Your task to perform on an android device: turn off notifications in google photos Image 0: 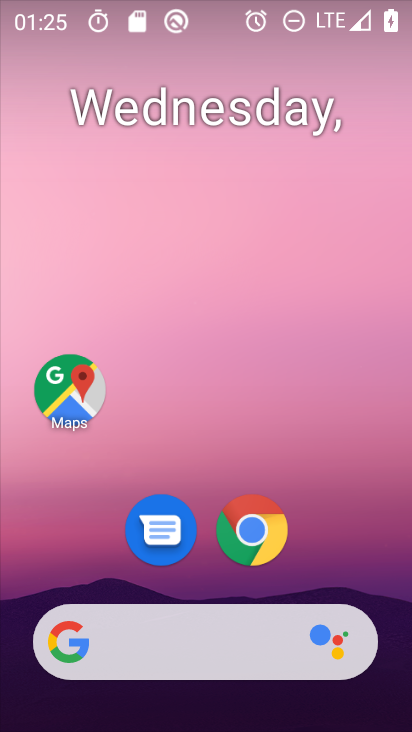
Step 0: drag from (328, 590) to (374, 2)
Your task to perform on an android device: turn off notifications in google photos Image 1: 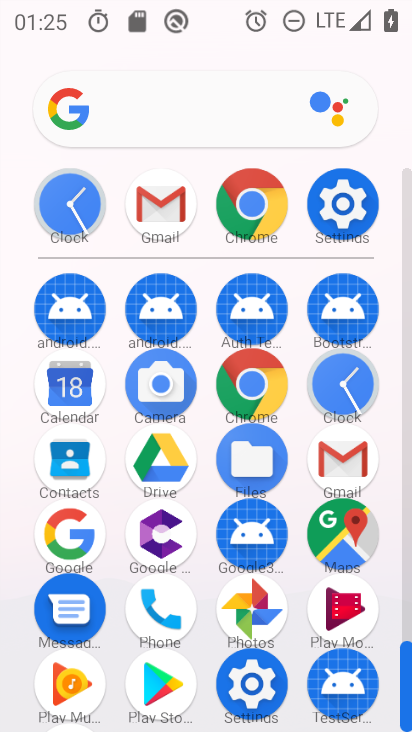
Step 1: click (257, 615)
Your task to perform on an android device: turn off notifications in google photos Image 2: 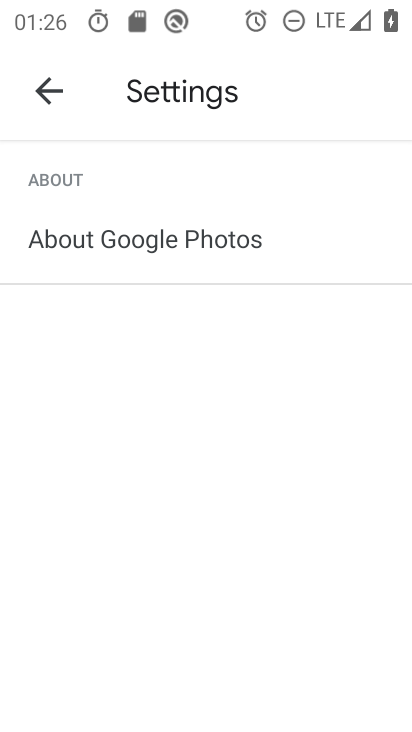
Step 2: press back button
Your task to perform on an android device: turn off notifications in google photos Image 3: 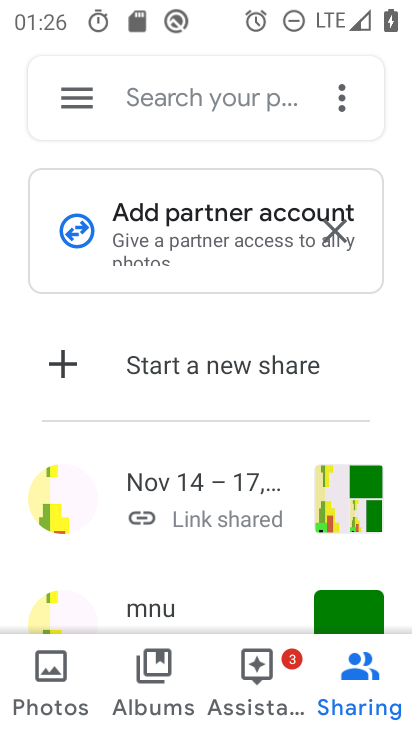
Step 3: click (75, 92)
Your task to perform on an android device: turn off notifications in google photos Image 4: 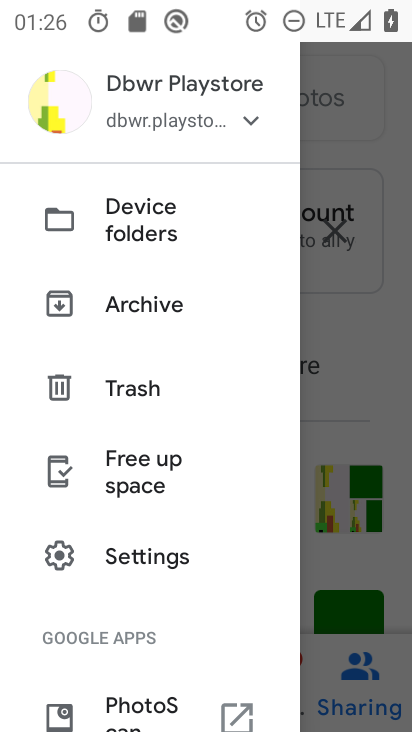
Step 4: click (140, 548)
Your task to perform on an android device: turn off notifications in google photos Image 5: 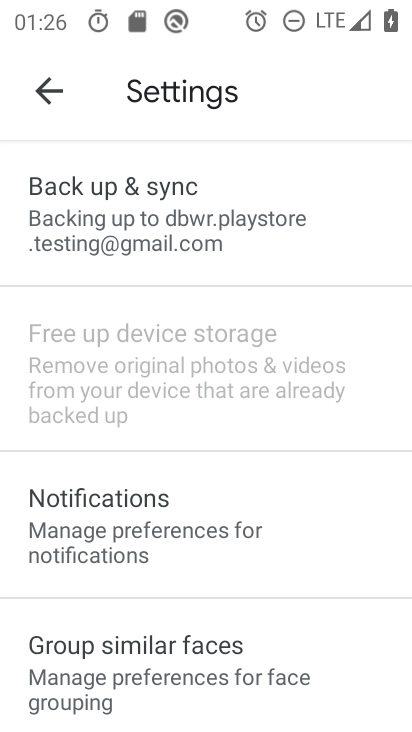
Step 5: click (231, 549)
Your task to perform on an android device: turn off notifications in google photos Image 6: 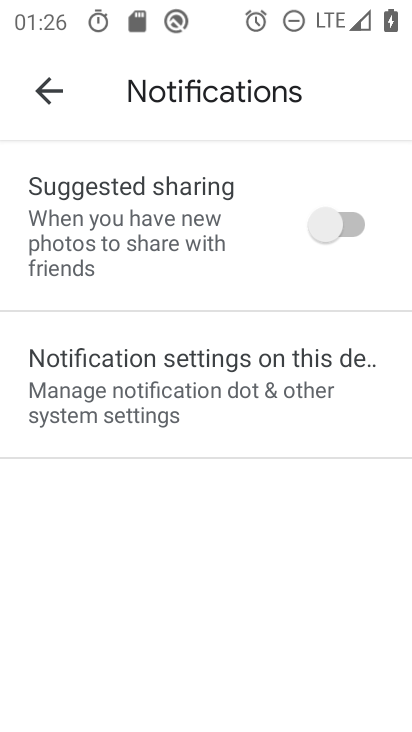
Step 6: click (240, 373)
Your task to perform on an android device: turn off notifications in google photos Image 7: 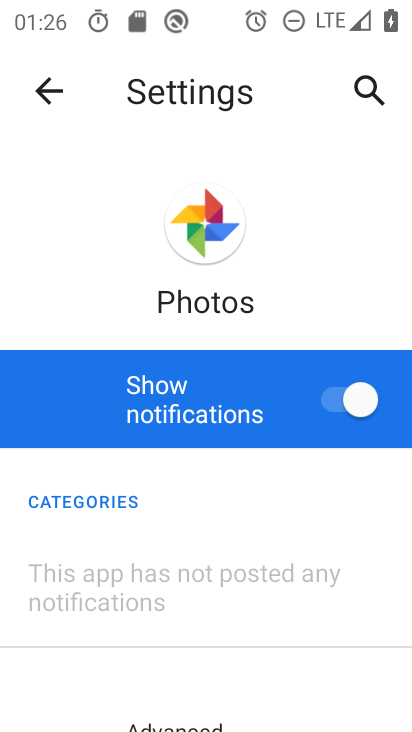
Step 7: click (333, 401)
Your task to perform on an android device: turn off notifications in google photos Image 8: 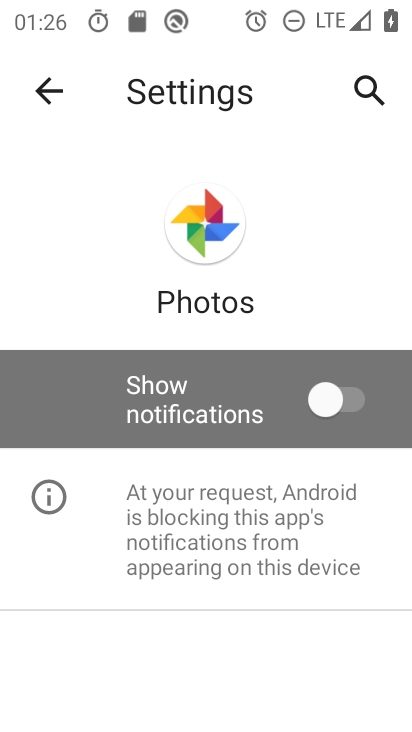
Step 8: task complete